Your task to perform on an android device: toggle javascript in the chrome app Image 0: 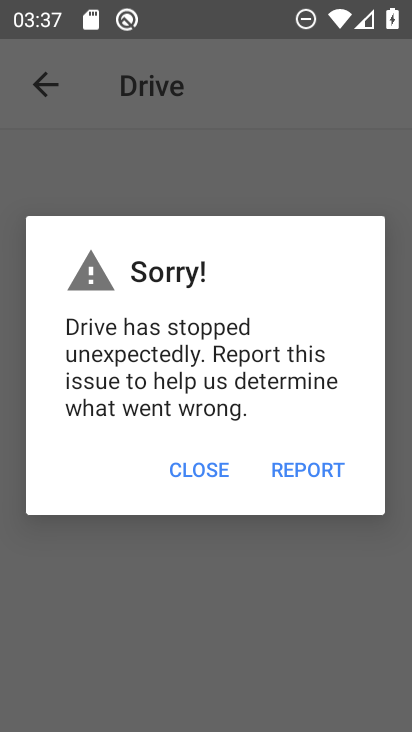
Step 0: press home button
Your task to perform on an android device: toggle javascript in the chrome app Image 1: 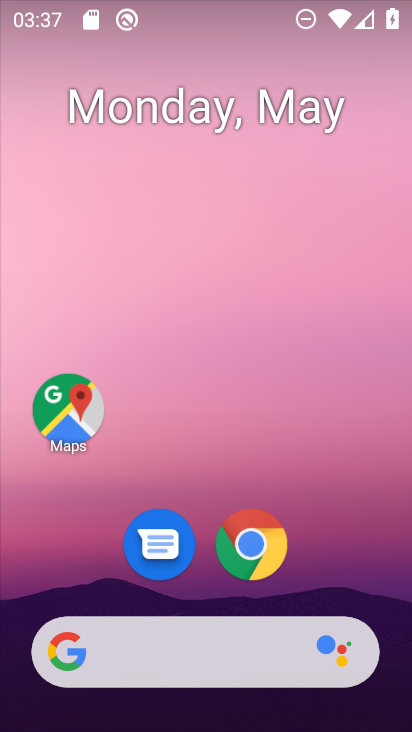
Step 1: drag from (360, 551) to (407, 146)
Your task to perform on an android device: toggle javascript in the chrome app Image 2: 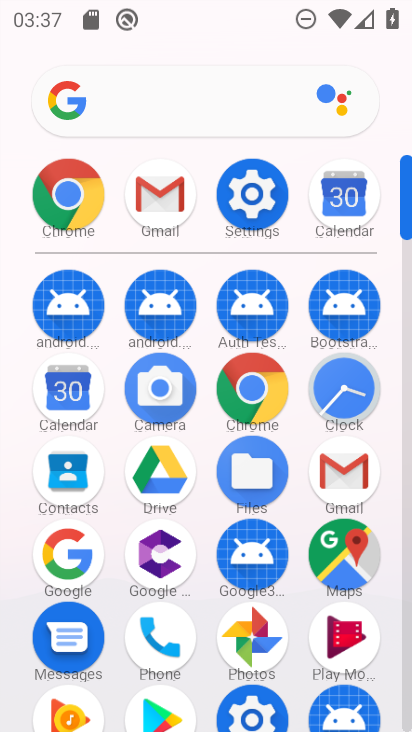
Step 2: click (277, 393)
Your task to perform on an android device: toggle javascript in the chrome app Image 3: 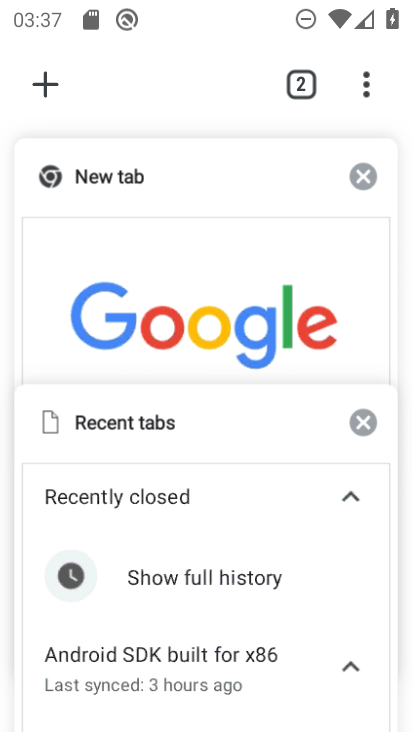
Step 3: click (363, 95)
Your task to perform on an android device: toggle javascript in the chrome app Image 4: 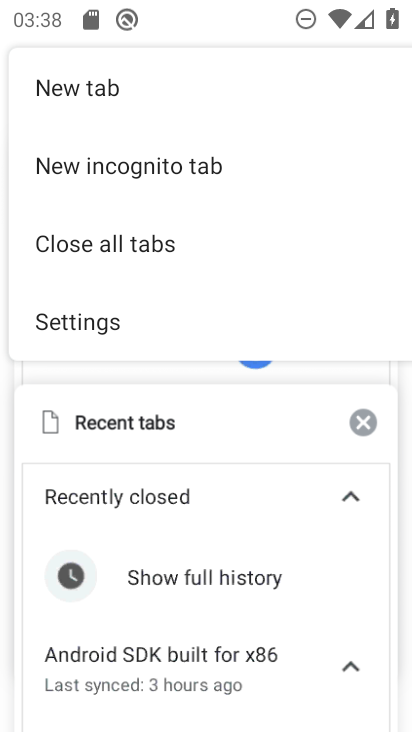
Step 4: click (119, 328)
Your task to perform on an android device: toggle javascript in the chrome app Image 5: 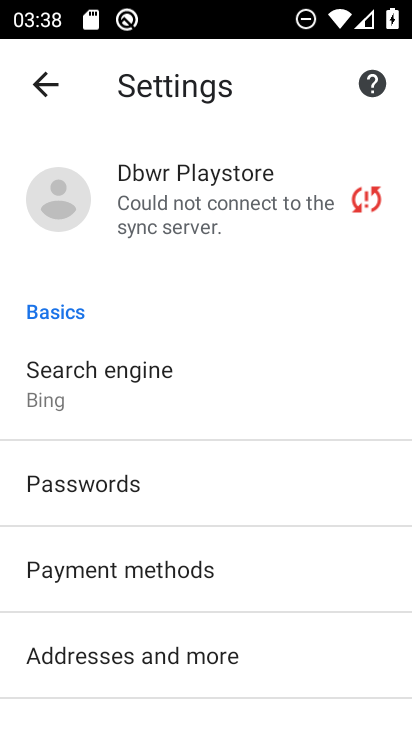
Step 5: drag from (311, 556) to (333, 438)
Your task to perform on an android device: toggle javascript in the chrome app Image 6: 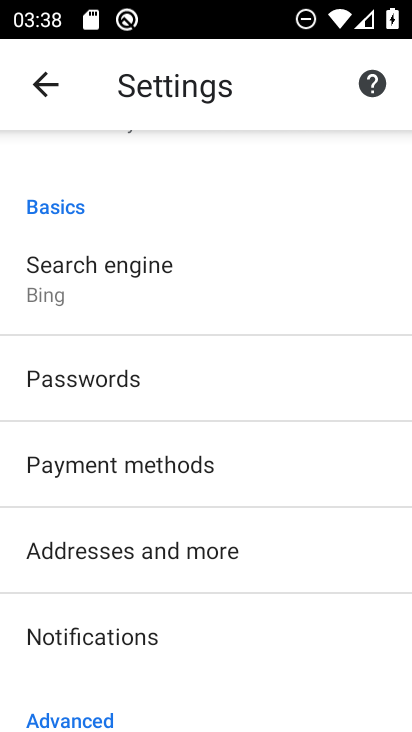
Step 6: drag from (336, 587) to (336, 446)
Your task to perform on an android device: toggle javascript in the chrome app Image 7: 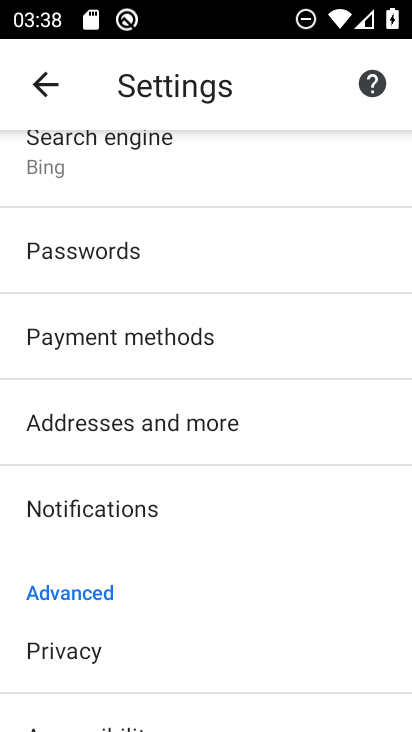
Step 7: drag from (328, 581) to (323, 475)
Your task to perform on an android device: toggle javascript in the chrome app Image 8: 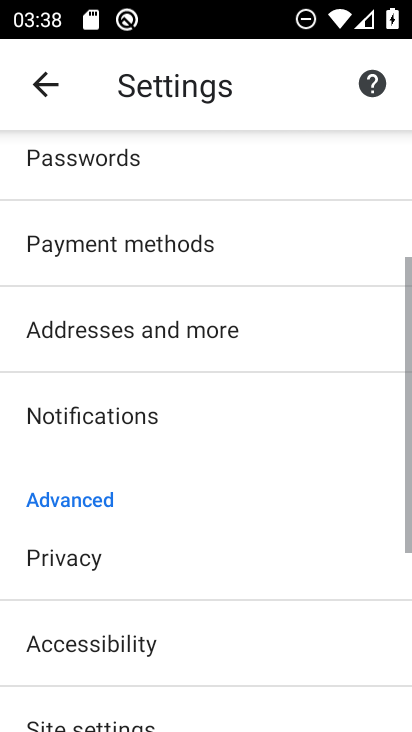
Step 8: drag from (317, 602) to (324, 467)
Your task to perform on an android device: toggle javascript in the chrome app Image 9: 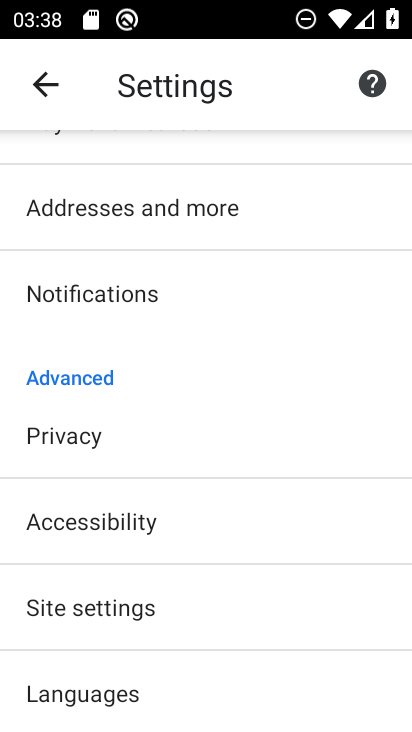
Step 9: drag from (321, 601) to (325, 490)
Your task to perform on an android device: toggle javascript in the chrome app Image 10: 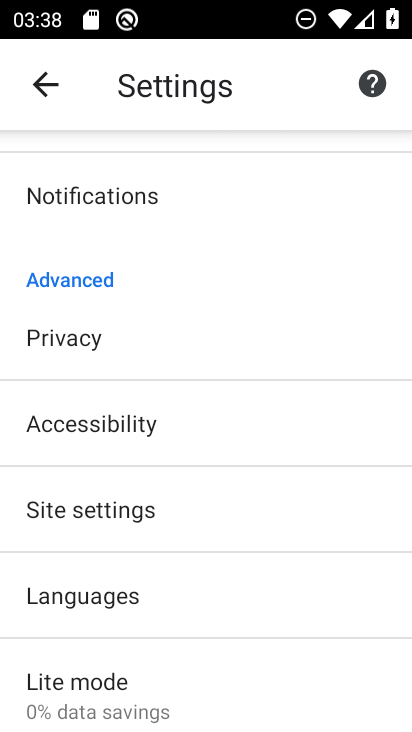
Step 10: drag from (310, 628) to (321, 503)
Your task to perform on an android device: toggle javascript in the chrome app Image 11: 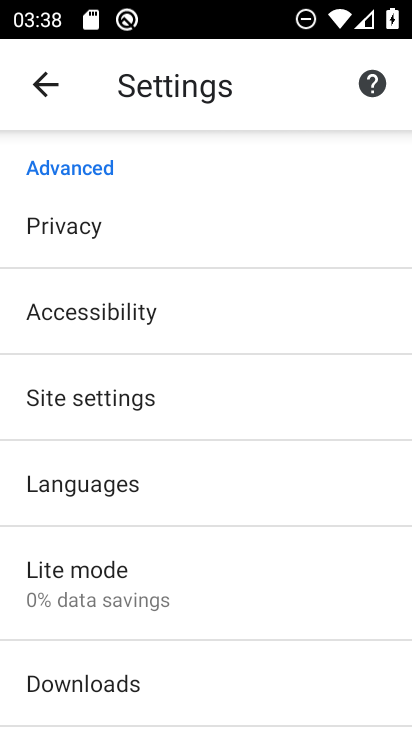
Step 11: click (275, 413)
Your task to perform on an android device: toggle javascript in the chrome app Image 12: 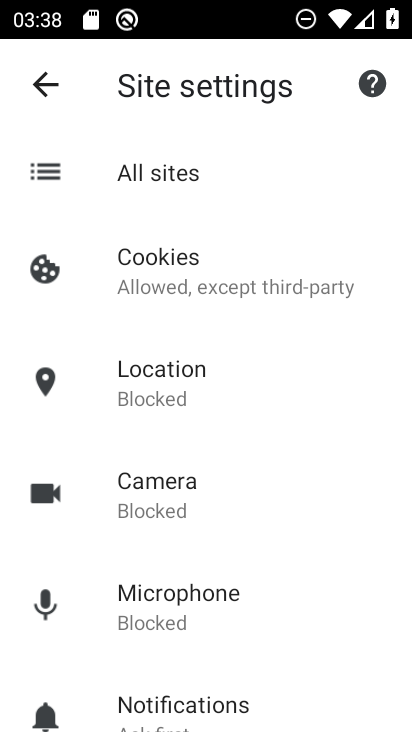
Step 12: drag from (306, 482) to (316, 435)
Your task to perform on an android device: toggle javascript in the chrome app Image 13: 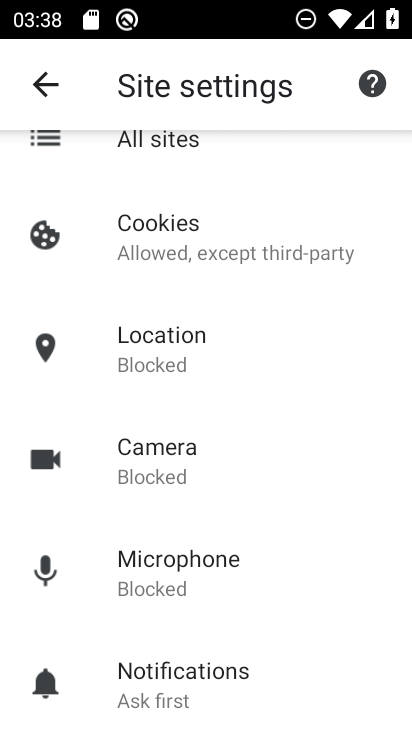
Step 13: drag from (333, 500) to (336, 439)
Your task to perform on an android device: toggle javascript in the chrome app Image 14: 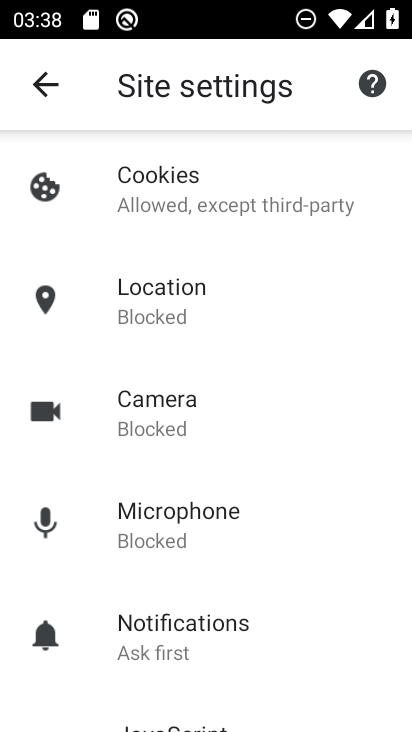
Step 14: drag from (328, 522) to (330, 458)
Your task to perform on an android device: toggle javascript in the chrome app Image 15: 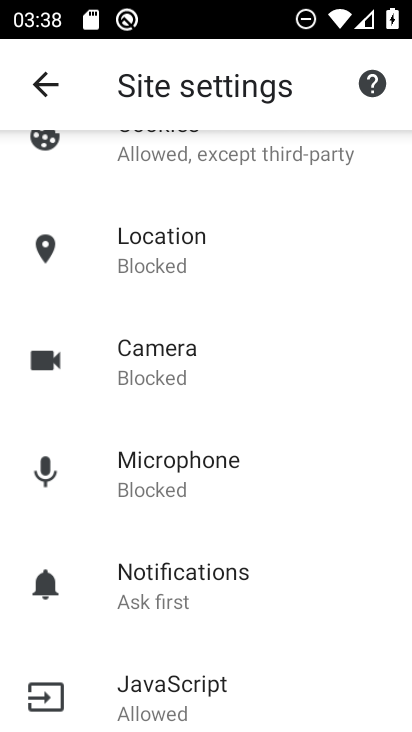
Step 15: drag from (326, 537) to (318, 428)
Your task to perform on an android device: toggle javascript in the chrome app Image 16: 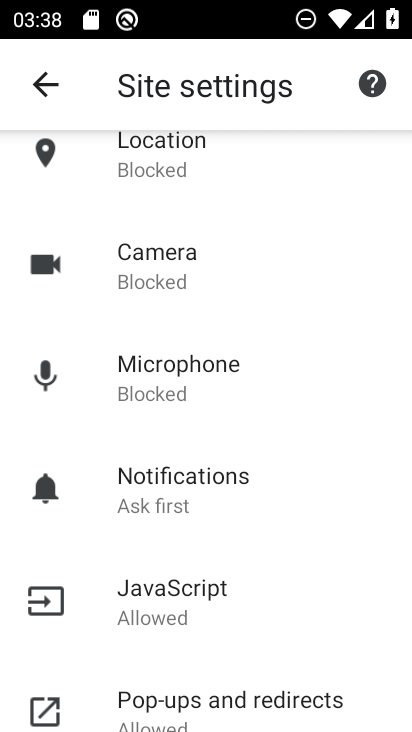
Step 16: drag from (314, 521) to (325, 450)
Your task to perform on an android device: toggle javascript in the chrome app Image 17: 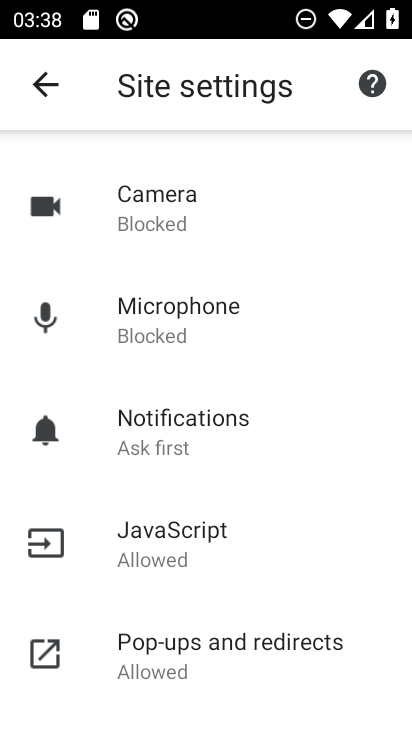
Step 17: drag from (314, 545) to (327, 438)
Your task to perform on an android device: toggle javascript in the chrome app Image 18: 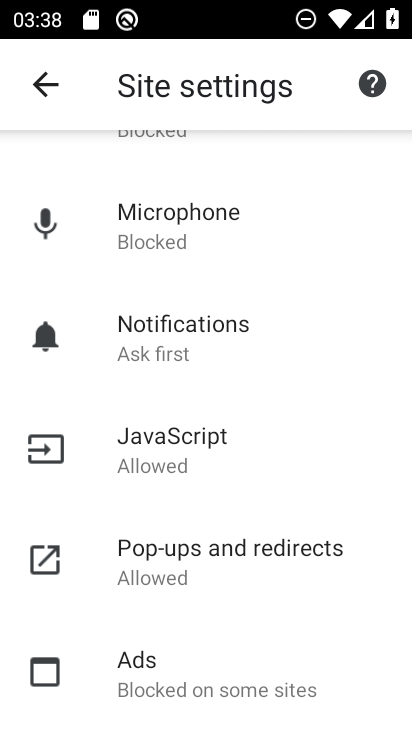
Step 18: drag from (328, 584) to (332, 457)
Your task to perform on an android device: toggle javascript in the chrome app Image 19: 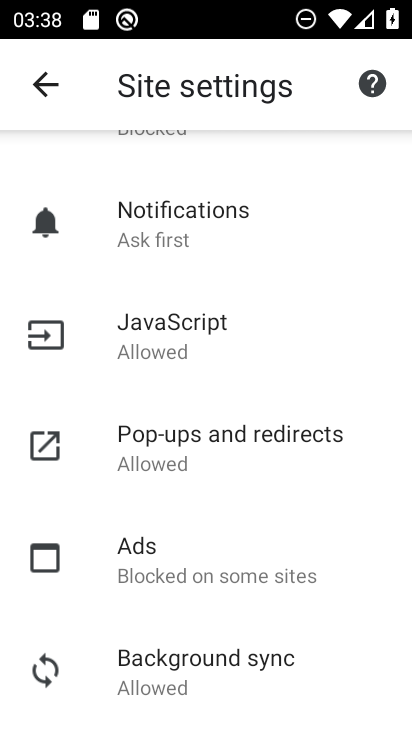
Step 19: click (196, 346)
Your task to perform on an android device: toggle javascript in the chrome app Image 20: 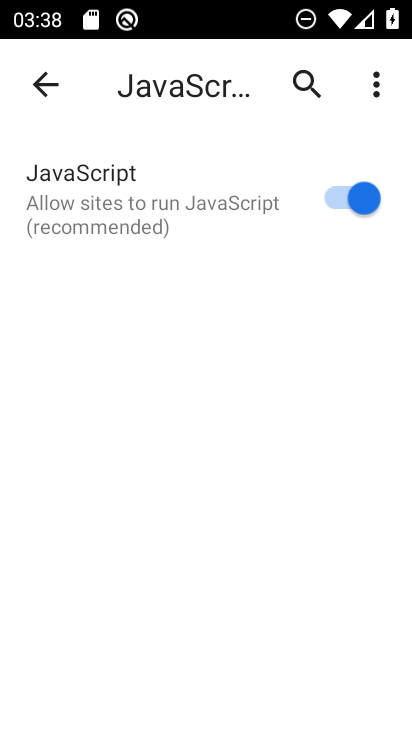
Step 20: click (364, 193)
Your task to perform on an android device: toggle javascript in the chrome app Image 21: 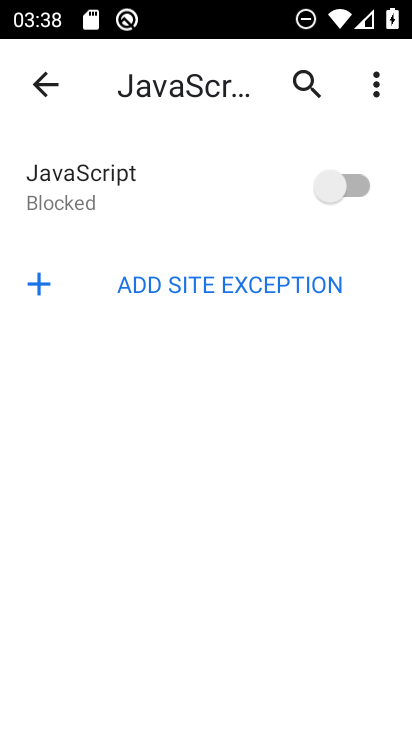
Step 21: task complete